Your task to perform on an android device: Open Android settings Image 0: 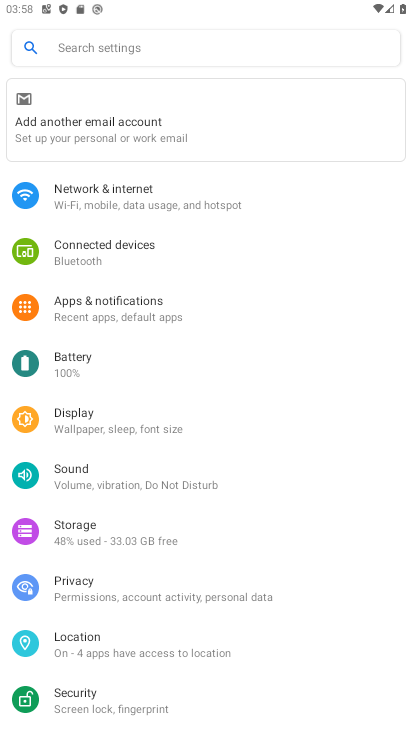
Step 0: task complete